Your task to perform on an android device: Go to notification settings Image 0: 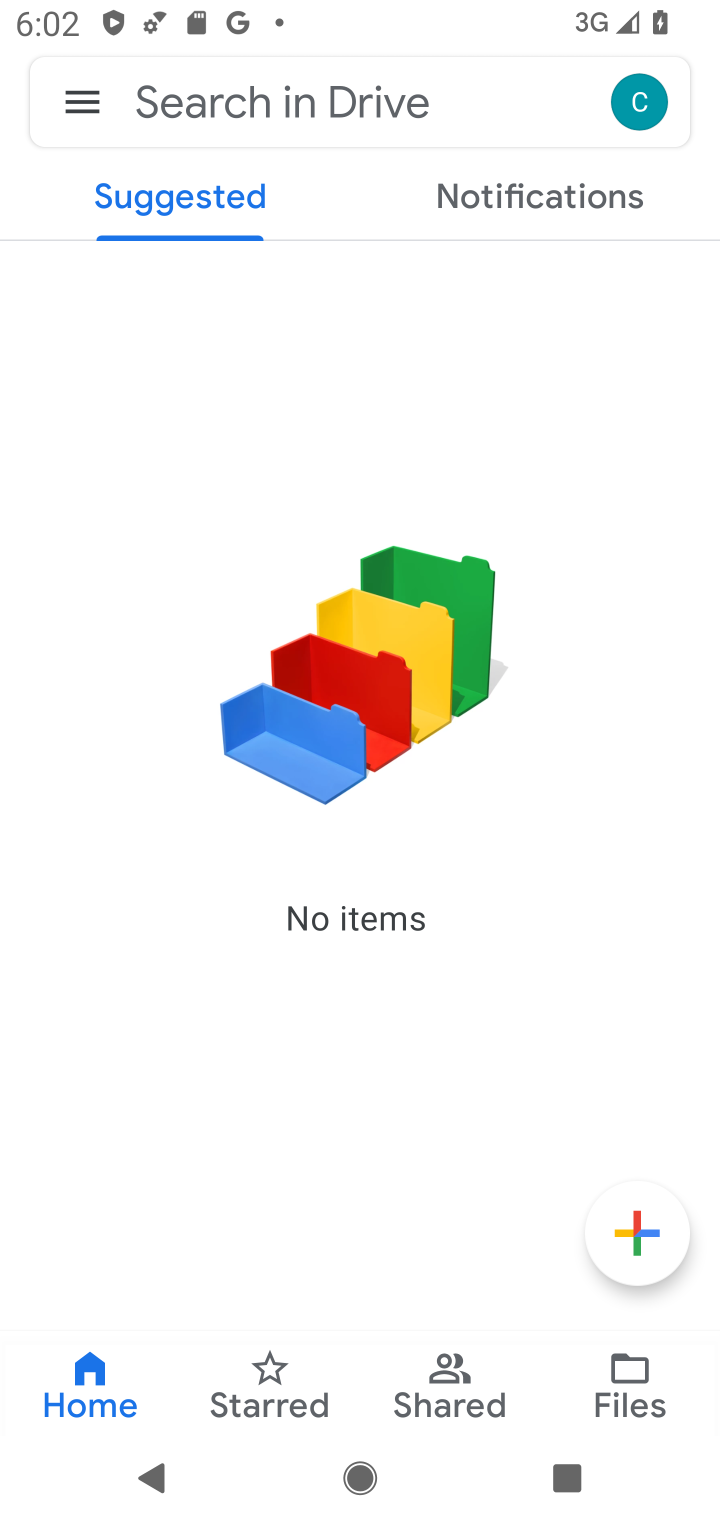
Step 0: press home button
Your task to perform on an android device: Go to notification settings Image 1: 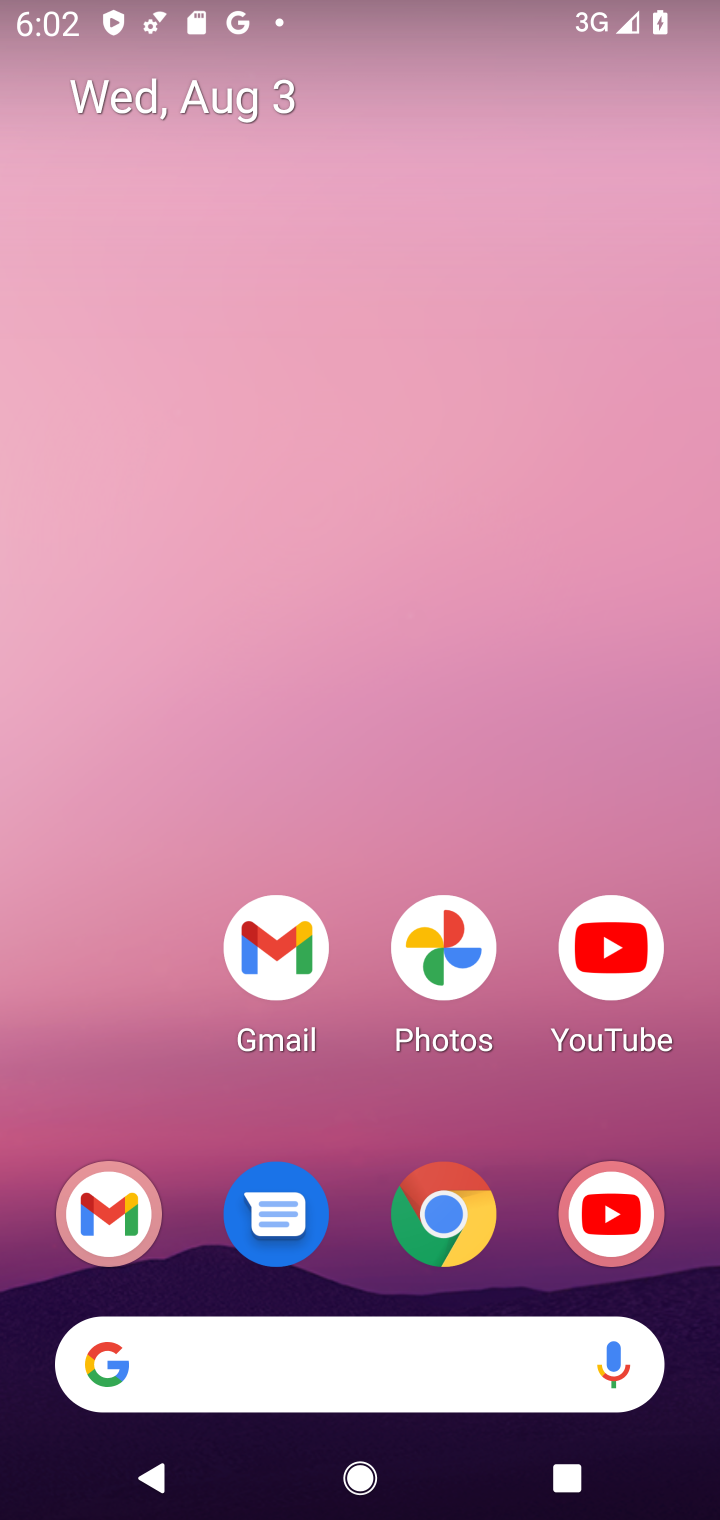
Step 1: drag from (367, 1123) to (372, 51)
Your task to perform on an android device: Go to notification settings Image 2: 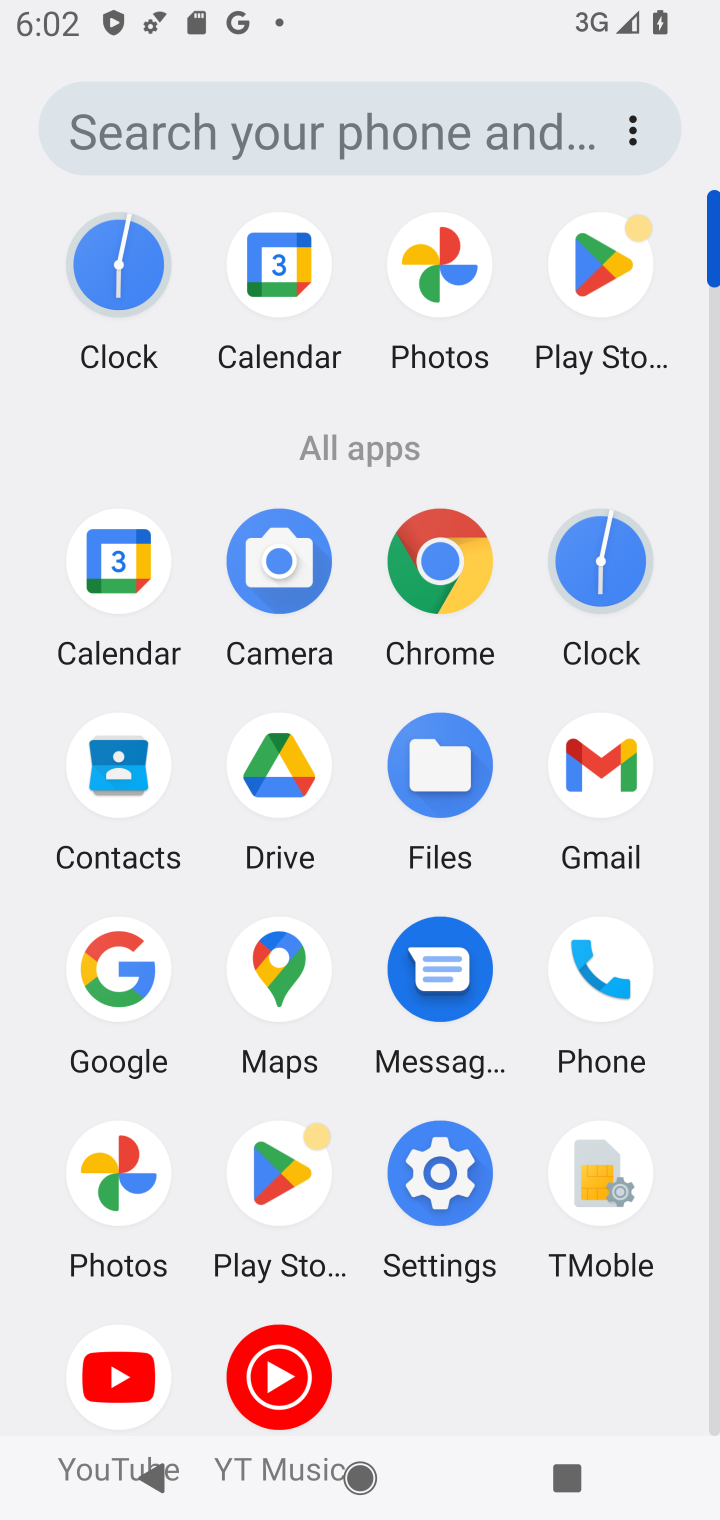
Step 2: click (467, 1198)
Your task to perform on an android device: Go to notification settings Image 3: 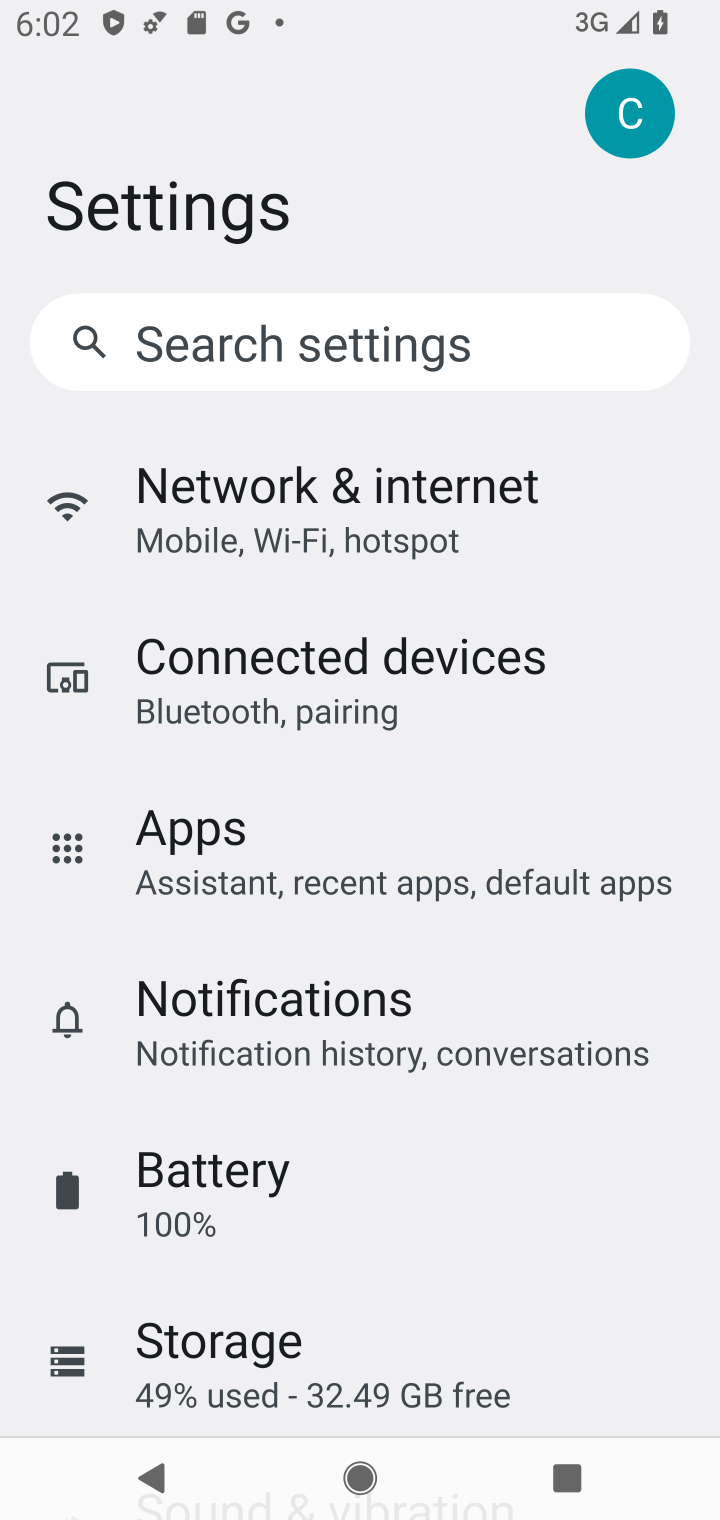
Step 3: click (379, 997)
Your task to perform on an android device: Go to notification settings Image 4: 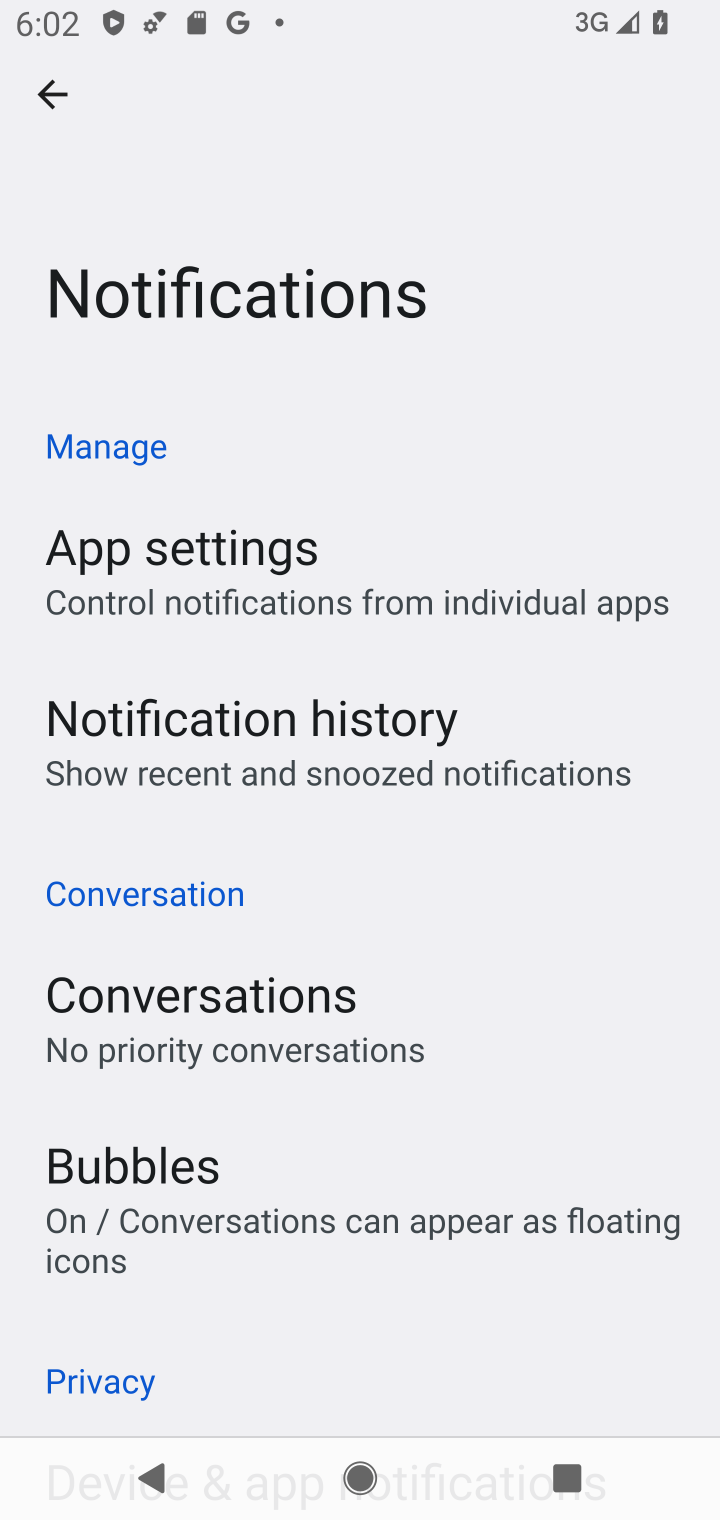
Step 4: task complete